Your task to perform on an android device: Open maps Image 0: 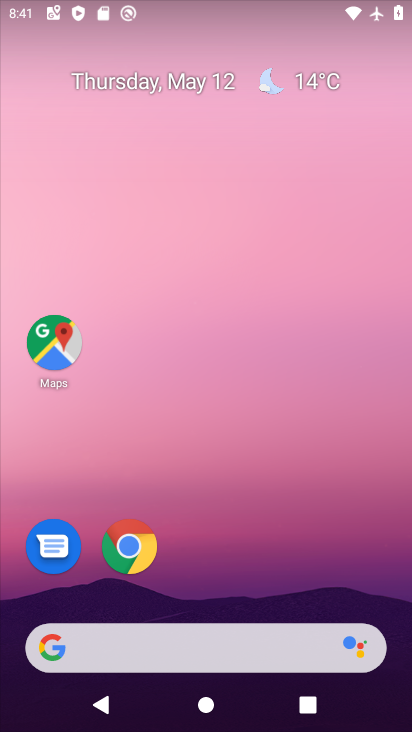
Step 0: click (60, 347)
Your task to perform on an android device: Open maps Image 1: 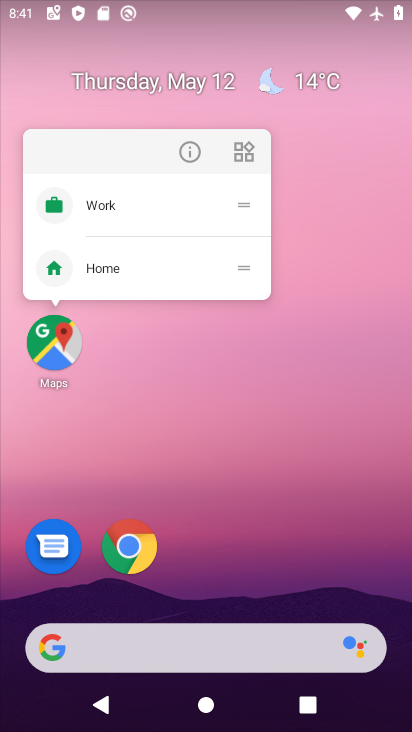
Step 1: click (103, 291)
Your task to perform on an android device: Open maps Image 2: 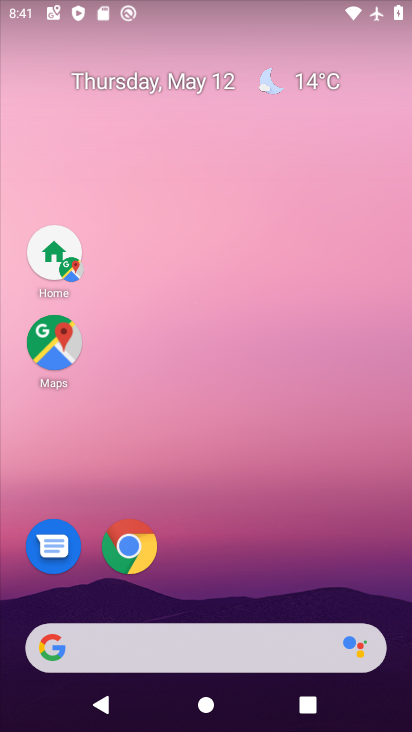
Step 2: click (70, 272)
Your task to perform on an android device: Open maps Image 3: 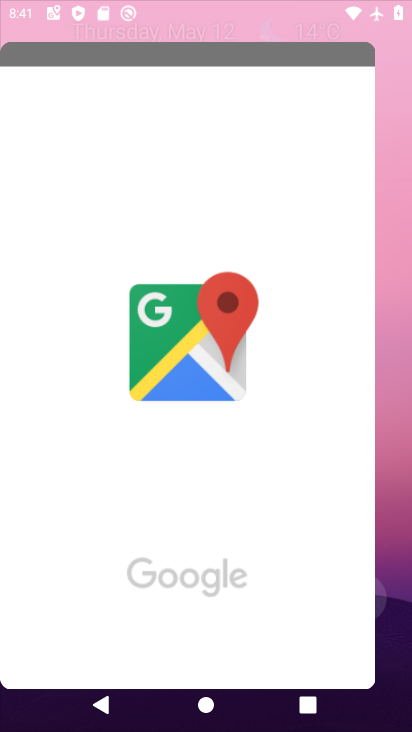
Step 3: click (58, 340)
Your task to perform on an android device: Open maps Image 4: 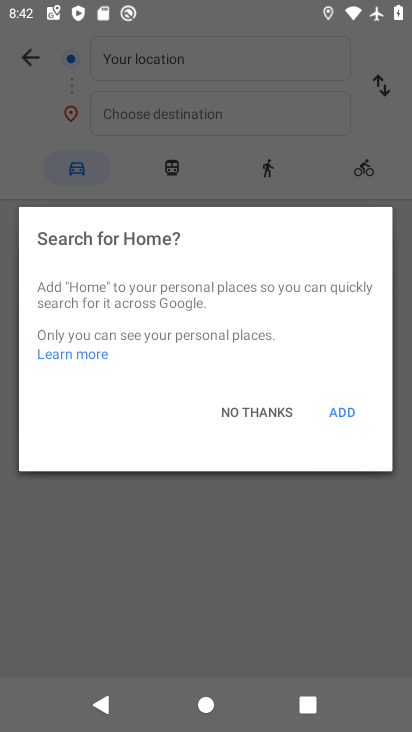
Step 4: click (254, 409)
Your task to perform on an android device: Open maps Image 5: 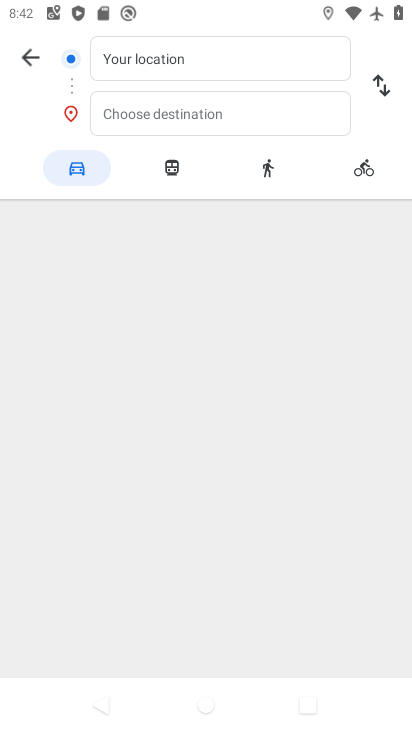
Step 5: task complete